Your task to perform on an android device: Open calendar and show me the second week of next month Image 0: 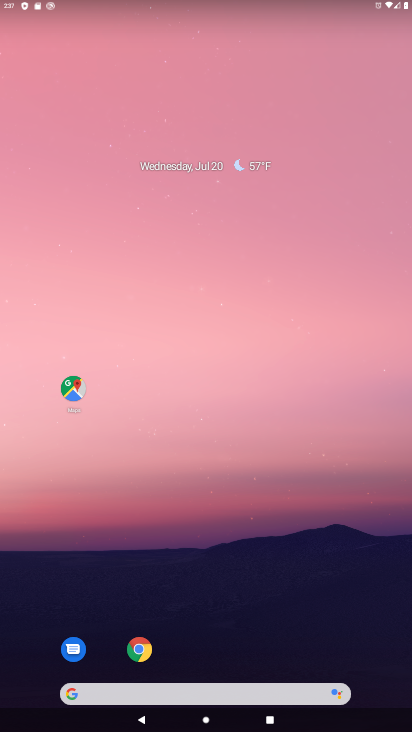
Step 0: click (175, 171)
Your task to perform on an android device: Open calendar and show me the second week of next month Image 1: 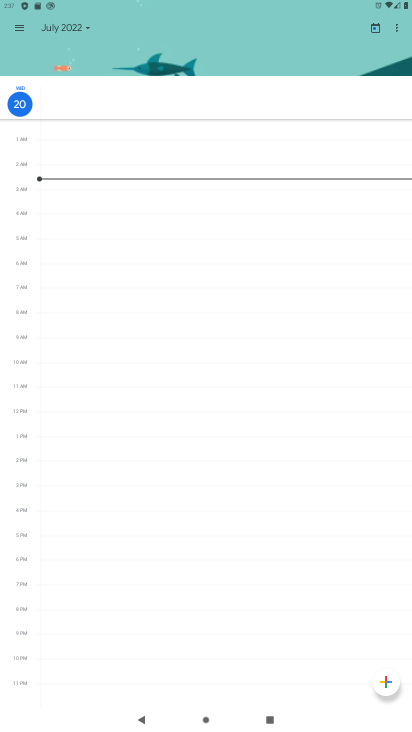
Step 1: click (81, 20)
Your task to perform on an android device: Open calendar and show me the second week of next month Image 2: 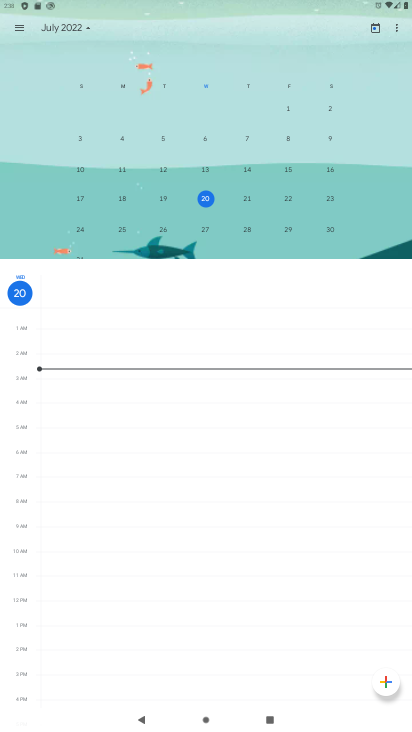
Step 2: drag from (362, 211) to (86, 154)
Your task to perform on an android device: Open calendar and show me the second week of next month Image 3: 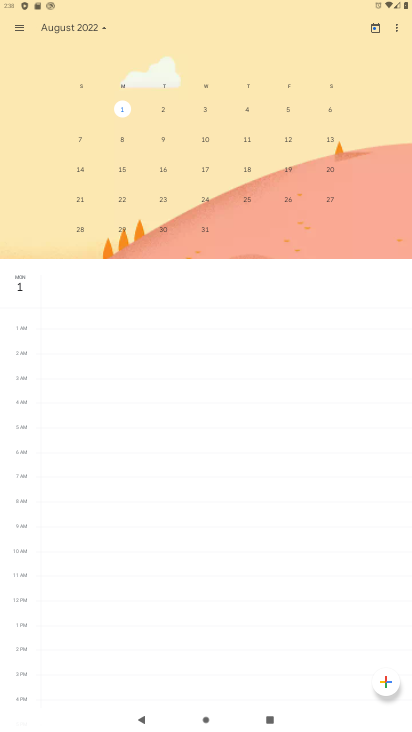
Step 3: click (123, 145)
Your task to perform on an android device: Open calendar and show me the second week of next month Image 4: 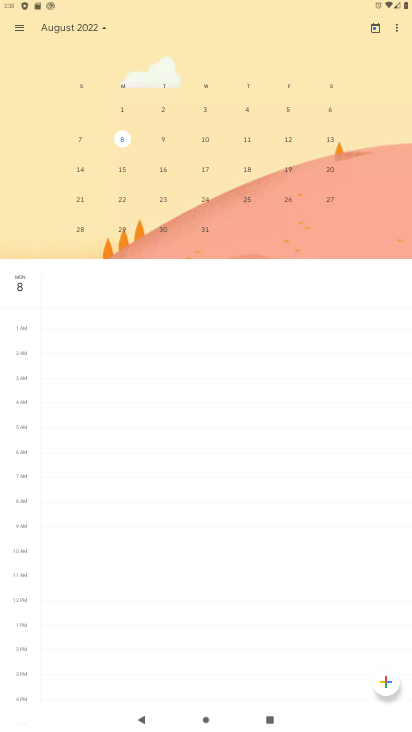
Step 4: task complete